Your task to perform on an android device: Open Amazon Image 0: 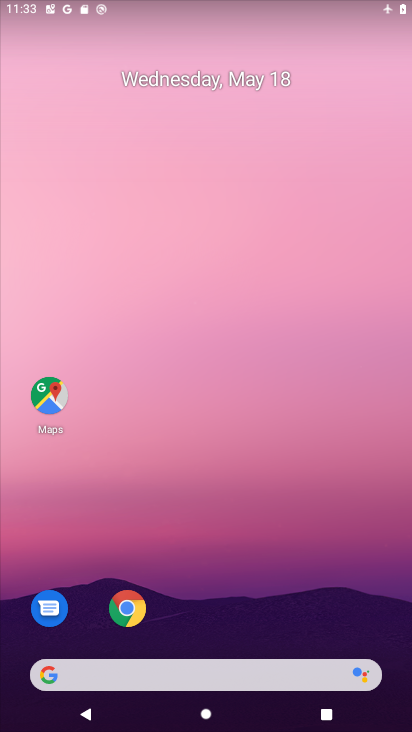
Step 0: click (125, 614)
Your task to perform on an android device: Open Amazon Image 1: 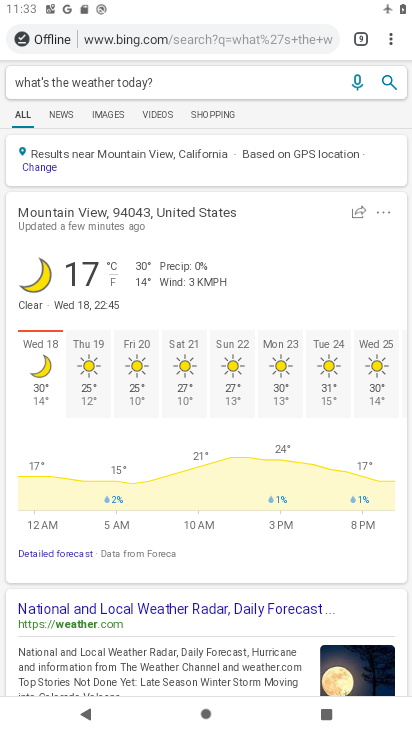
Step 1: click (359, 40)
Your task to perform on an android device: Open Amazon Image 2: 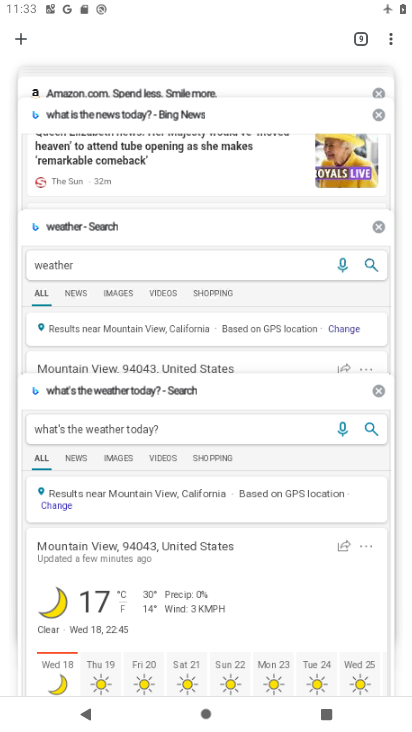
Step 2: drag from (171, 144) to (170, 278)
Your task to perform on an android device: Open Amazon Image 3: 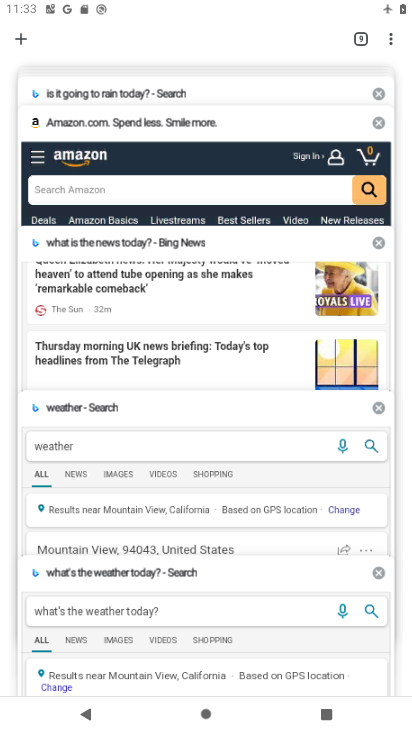
Step 3: click (155, 203)
Your task to perform on an android device: Open Amazon Image 4: 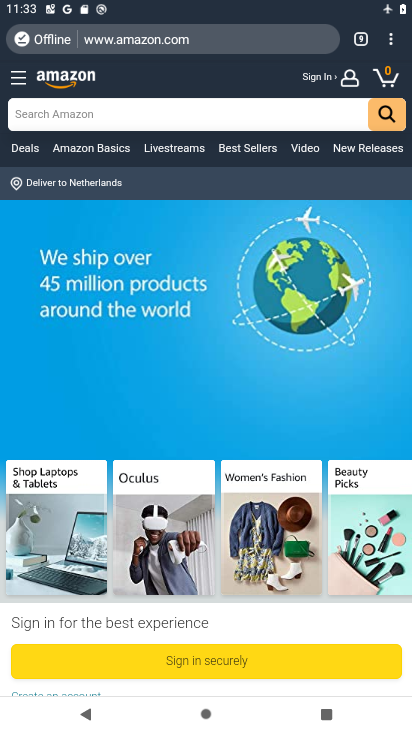
Step 4: task complete